Your task to perform on an android device: Toggle the flashlight Image 0: 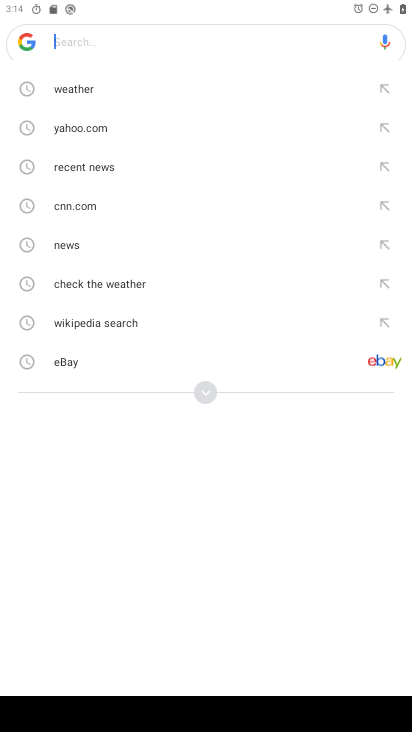
Step 0: press home button
Your task to perform on an android device: Toggle the flashlight Image 1: 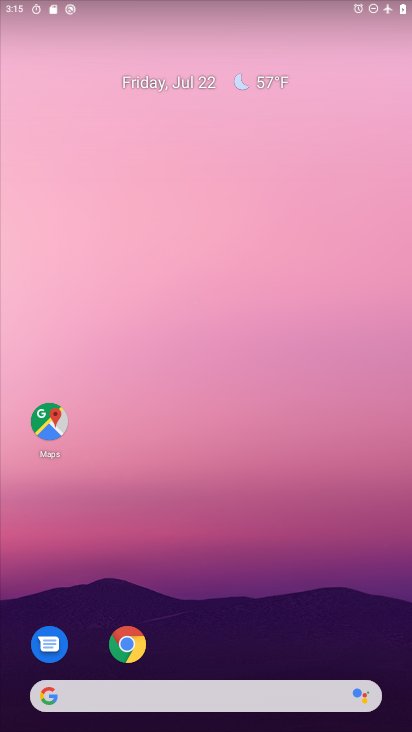
Step 1: drag from (193, 649) to (178, 244)
Your task to perform on an android device: Toggle the flashlight Image 2: 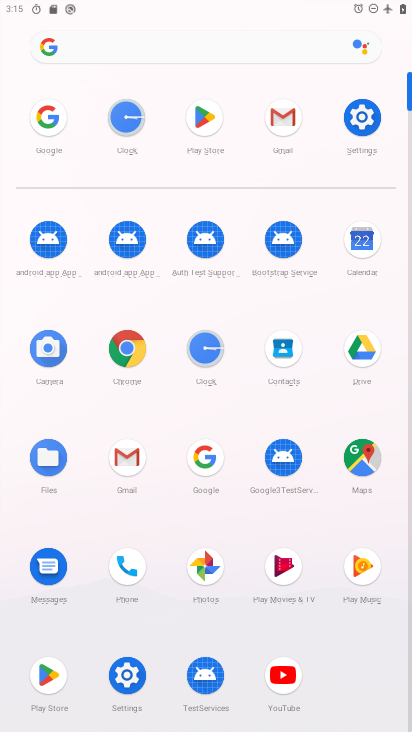
Step 2: click (373, 130)
Your task to perform on an android device: Toggle the flashlight Image 3: 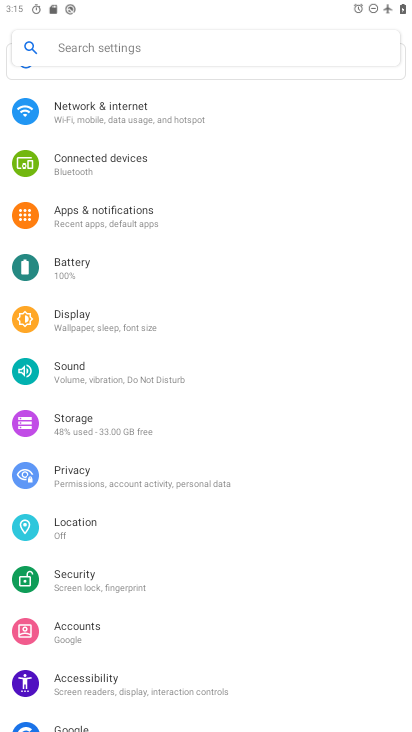
Step 3: task complete